Your task to perform on an android device: Open Maps and search for coffee Image 0: 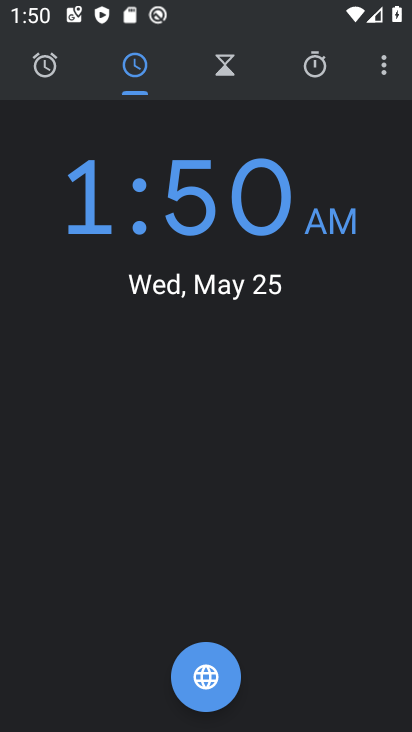
Step 0: press home button
Your task to perform on an android device: Open Maps and search for coffee Image 1: 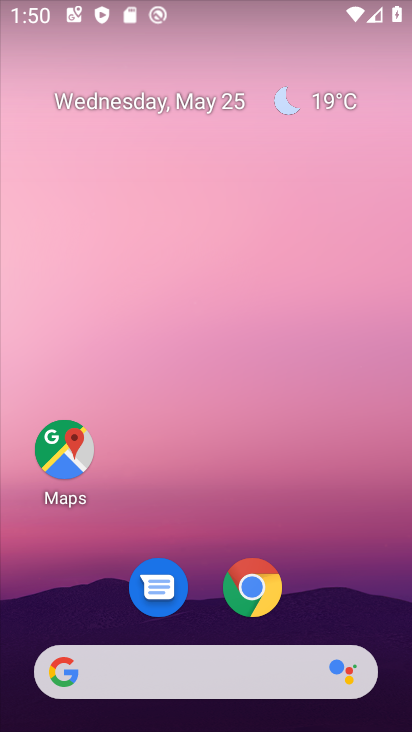
Step 1: click (65, 451)
Your task to perform on an android device: Open Maps and search for coffee Image 2: 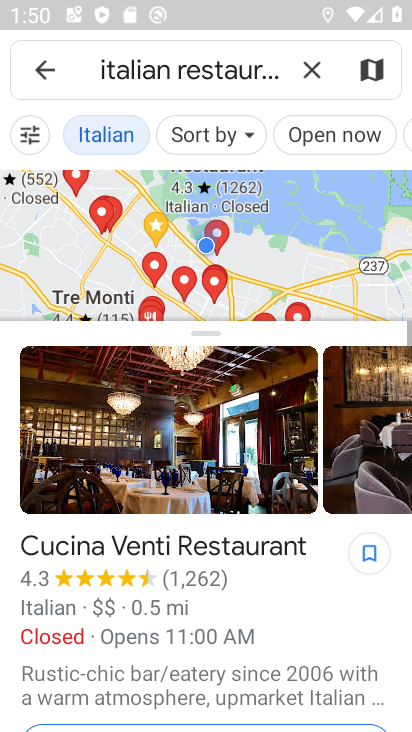
Step 2: click (305, 68)
Your task to perform on an android device: Open Maps and search for coffee Image 3: 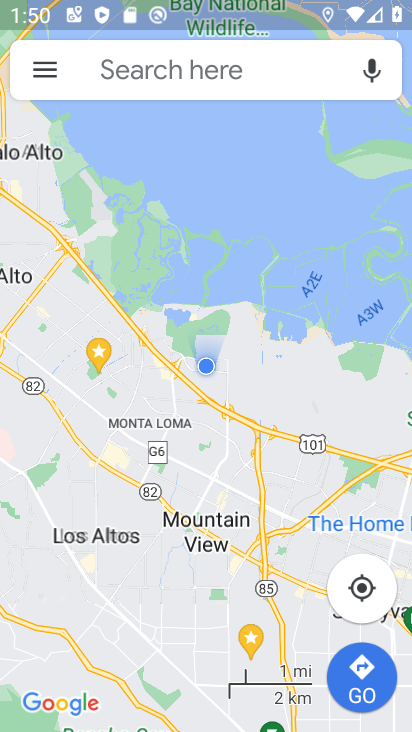
Step 3: click (205, 73)
Your task to perform on an android device: Open Maps and search for coffee Image 4: 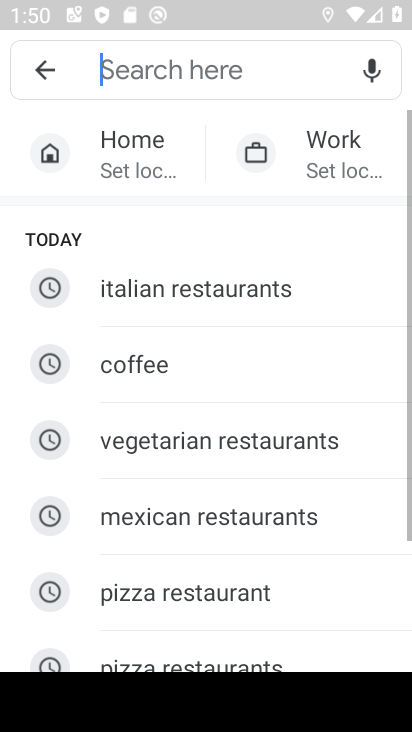
Step 4: click (153, 365)
Your task to perform on an android device: Open Maps and search for coffee Image 5: 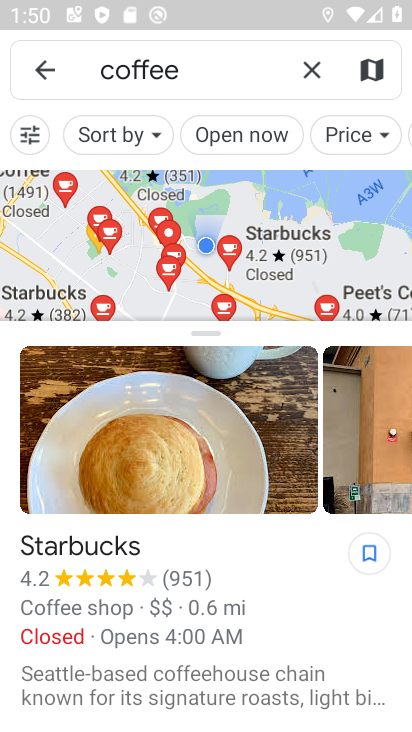
Step 5: task complete